Your task to perform on an android device: Search for seafood restaurants on Google Maps Image 0: 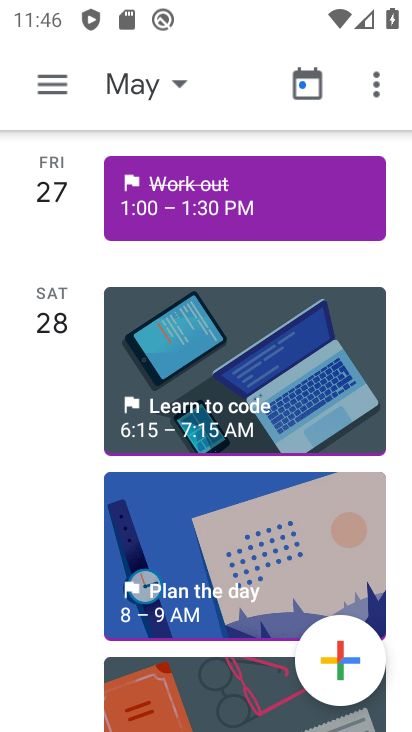
Step 0: press home button
Your task to perform on an android device: Search for seafood restaurants on Google Maps Image 1: 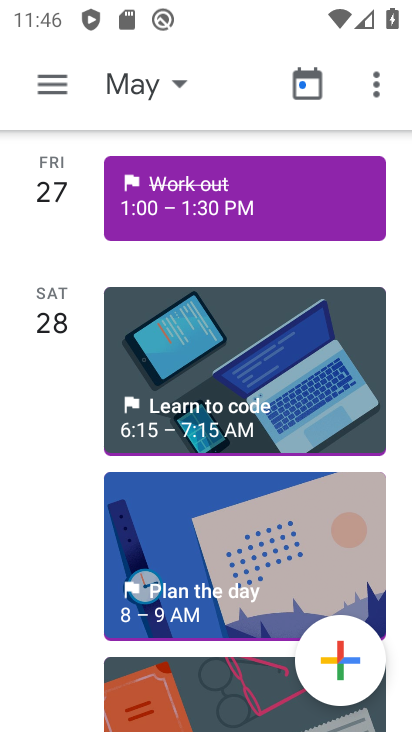
Step 1: click (408, 502)
Your task to perform on an android device: Search for seafood restaurants on Google Maps Image 2: 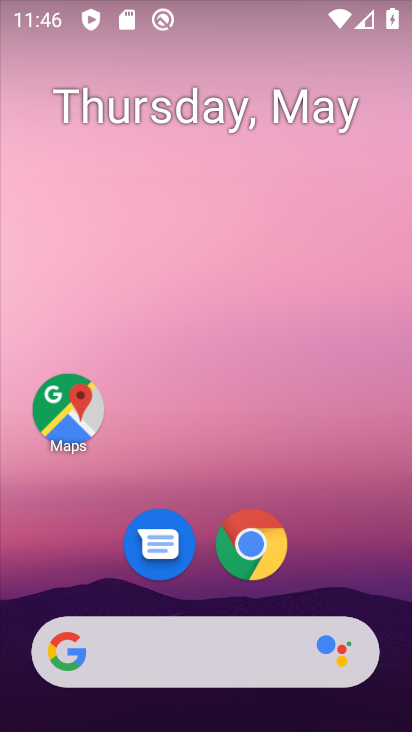
Step 2: drag from (221, 593) to (241, 234)
Your task to perform on an android device: Search for seafood restaurants on Google Maps Image 3: 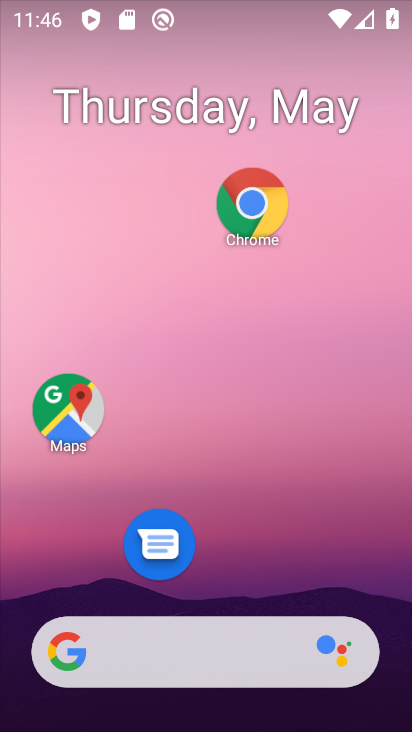
Step 3: drag from (229, 582) to (173, 146)
Your task to perform on an android device: Search for seafood restaurants on Google Maps Image 4: 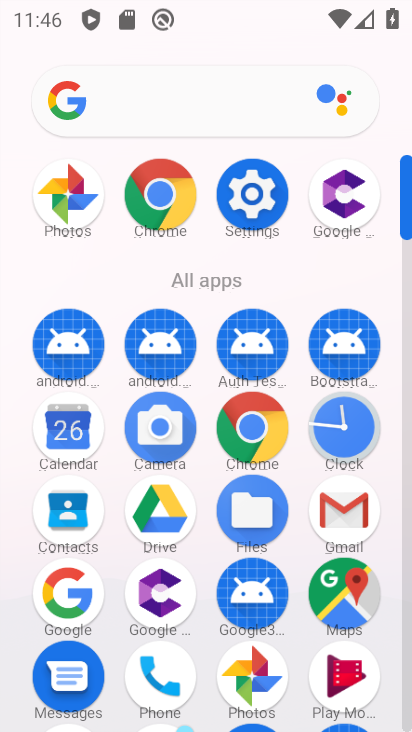
Step 4: click (339, 588)
Your task to perform on an android device: Search for seafood restaurants on Google Maps Image 5: 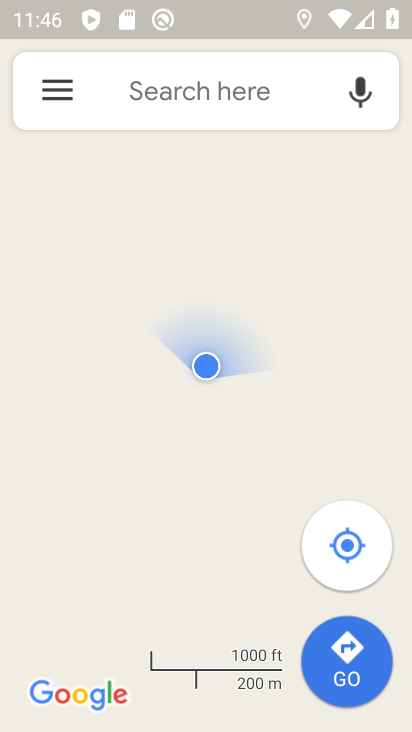
Step 5: click (133, 107)
Your task to perform on an android device: Search for seafood restaurants on Google Maps Image 6: 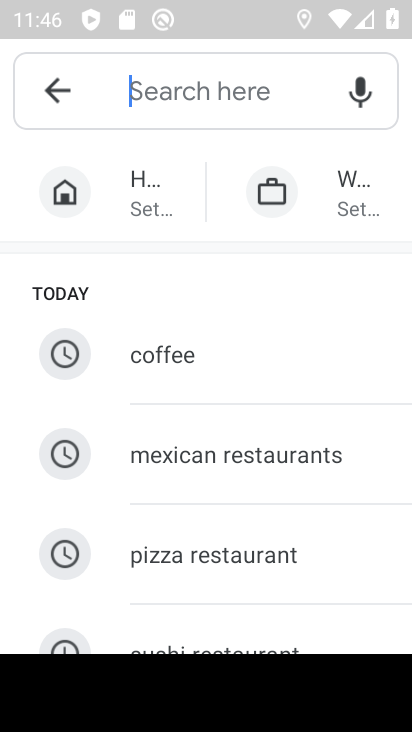
Step 6: drag from (264, 492) to (319, 194)
Your task to perform on an android device: Search for seafood restaurants on Google Maps Image 7: 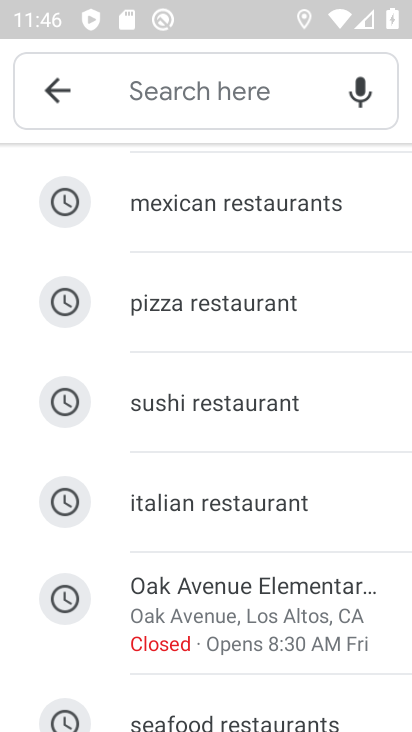
Step 7: drag from (223, 522) to (296, 193)
Your task to perform on an android device: Search for seafood restaurants on Google Maps Image 8: 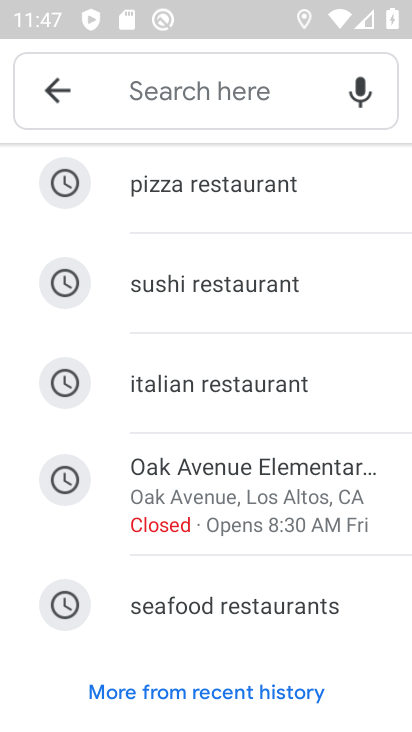
Step 8: click (151, 621)
Your task to perform on an android device: Search for seafood restaurants on Google Maps Image 9: 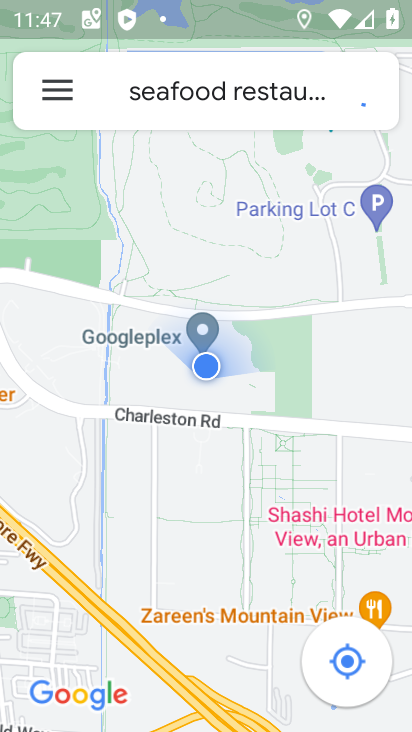
Step 9: task complete